Your task to perform on an android device: change timer sound Image 0: 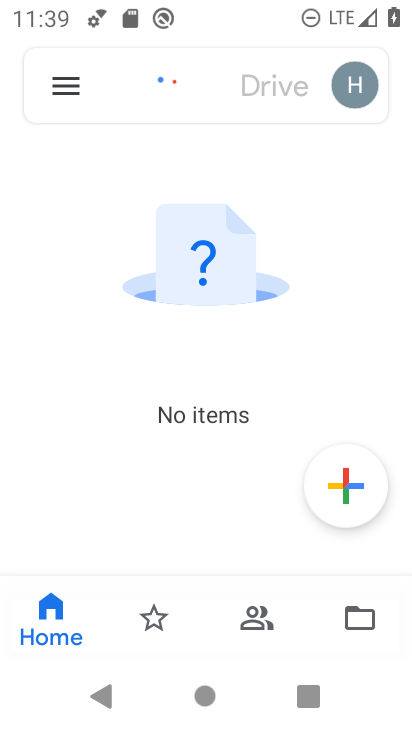
Step 0: press home button
Your task to perform on an android device: change timer sound Image 1: 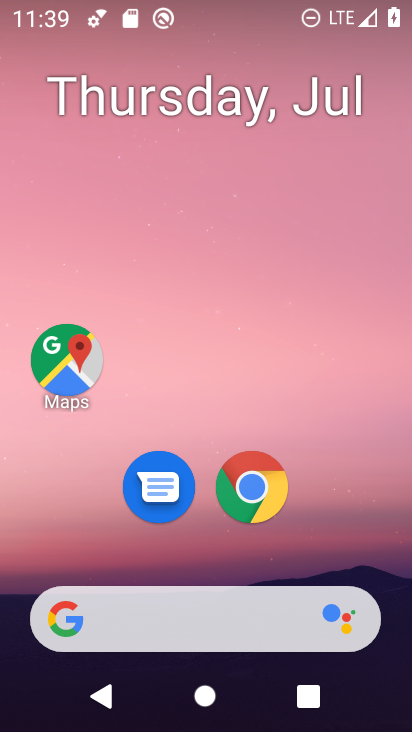
Step 1: drag from (259, 654) to (186, 114)
Your task to perform on an android device: change timer sound Image 2: 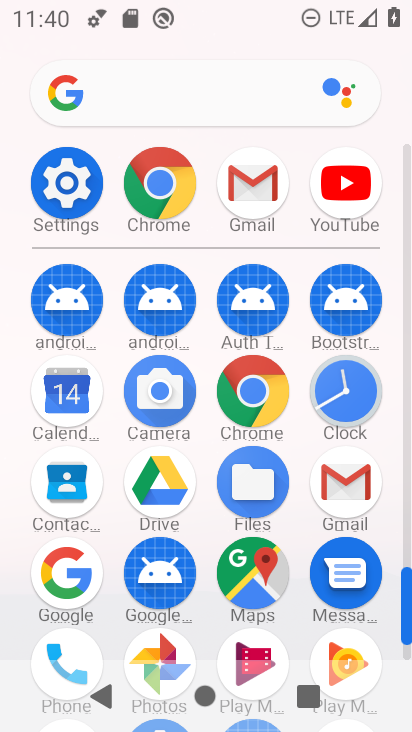
Step 2: click (343, 394)
Your task to perform on an android device: change timer sound Image 3: 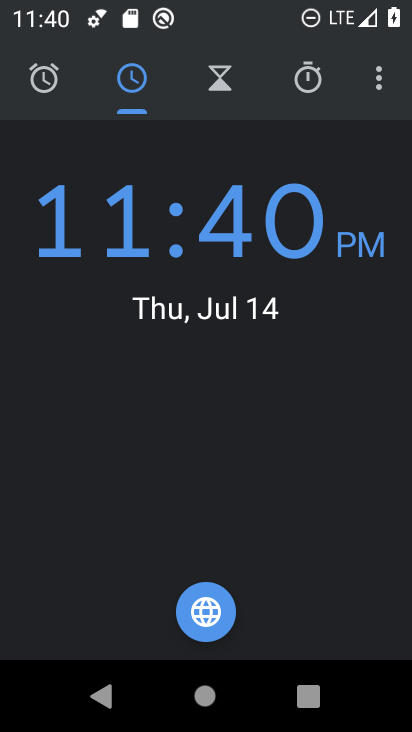
Step 3: click (389, 82)
Your task to perform on an android device: change timer sound Image 4: 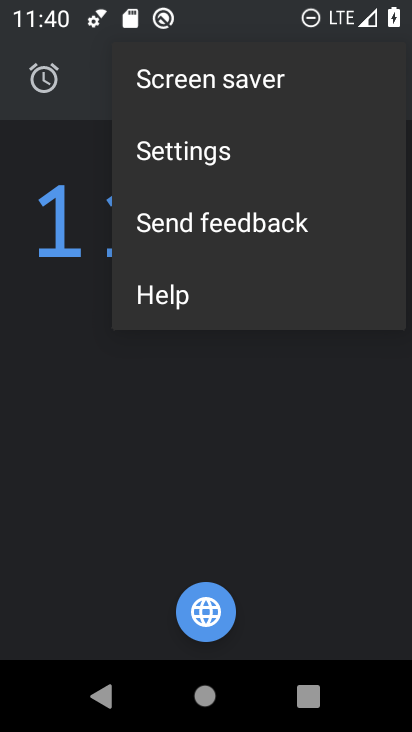
Step 4: click (234, 147)
Your task to perform on an android device: change timer sound Image 5: 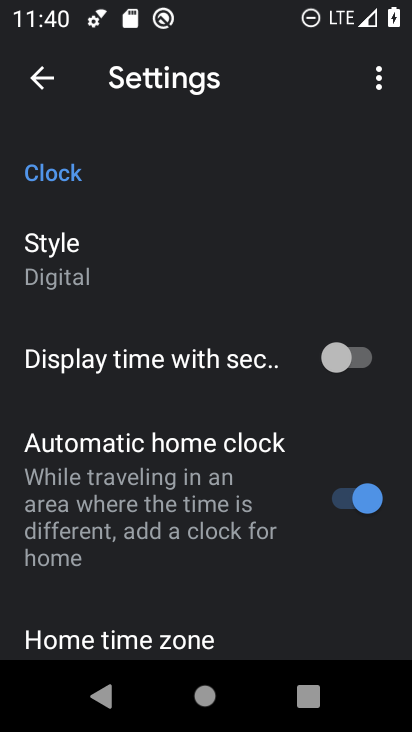
Step 5: drag from (133, 525) to (108, 244)
Your task to perform on an android device: change timer sound Image 6: 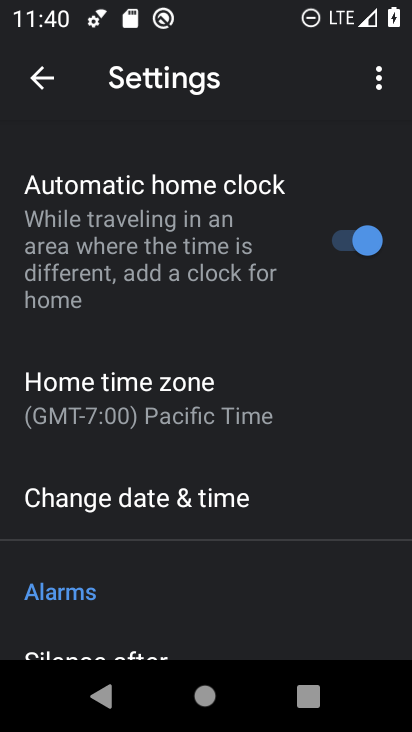
Step 6: drag from (121, 492) to (80, 81)
Your task to perform on an android device: change timer sound Image 7: 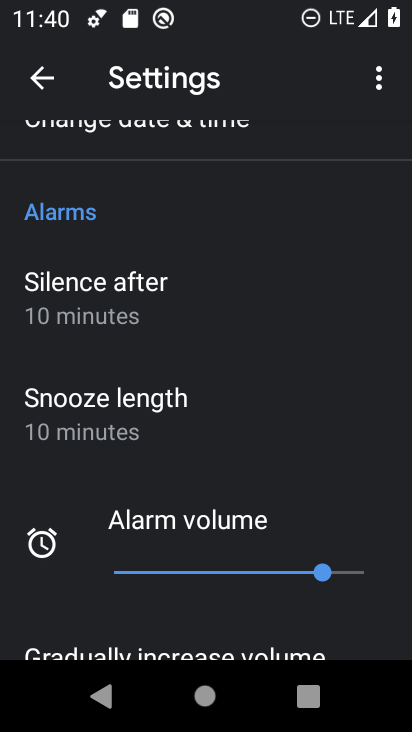
Step 7: drag from (127, 473) to (106, 64)
Your task to perform on an android device: change timer sound Image 8: 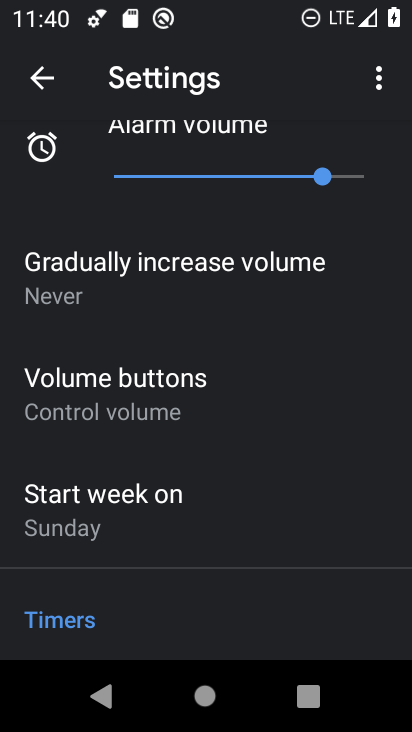
Step 8: drag from (135, 478) to (121, 134)
Your task to perform on an android device: change timer sound Image 9: 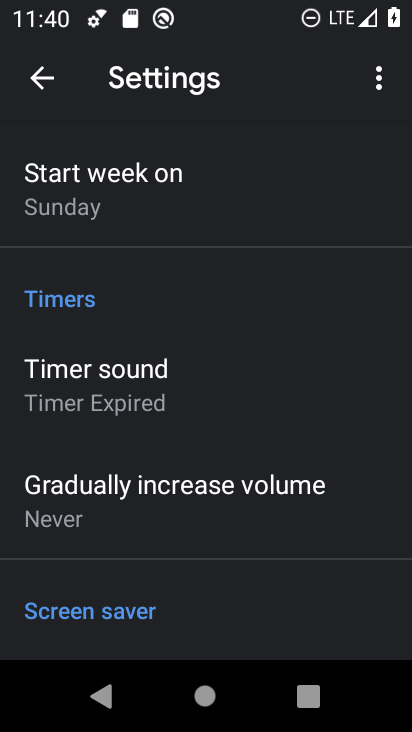
Step 9: click (136, 389)
Your task to perform on an android device: change timer sound Image 10: 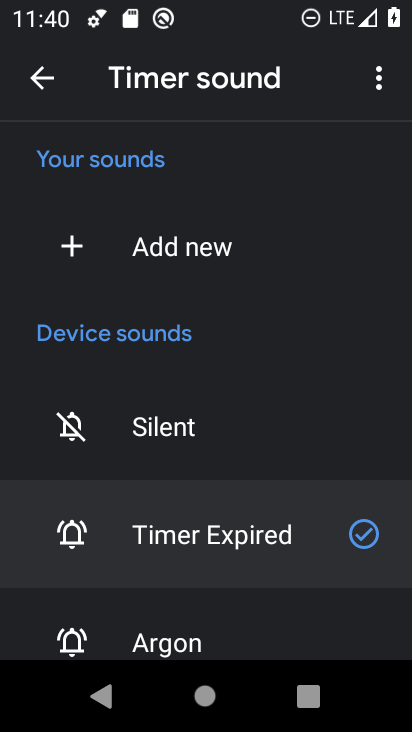
Step 10: click (150, 636)
Your task to perform on an android device: change timer sound Image 11: 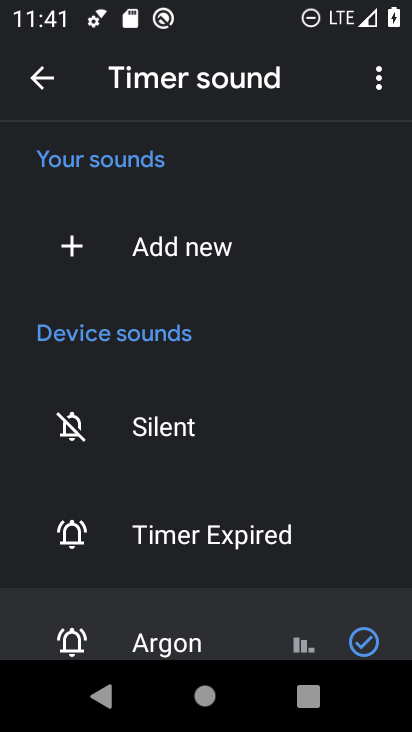
Step 11: task complete